Your task to perform on an android device: Open display settings Image 0: 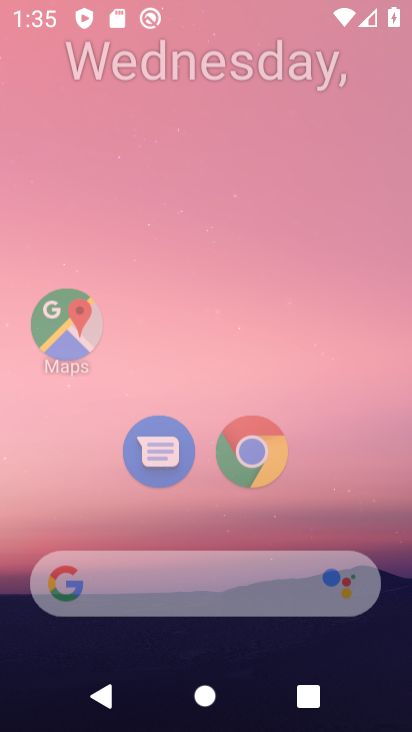
Step 0: drag from (317, 106) to (258, 5)
Your task to perform on an android device: Open display settings Image 1: 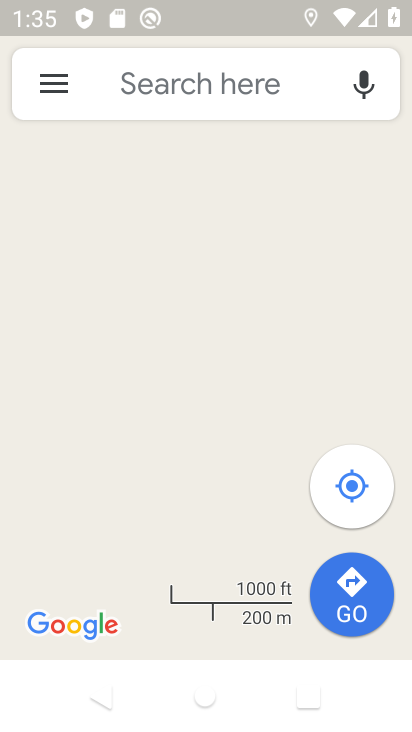
Step 1: press back button
Your task to perform on an android device: Open display settings Image 2: 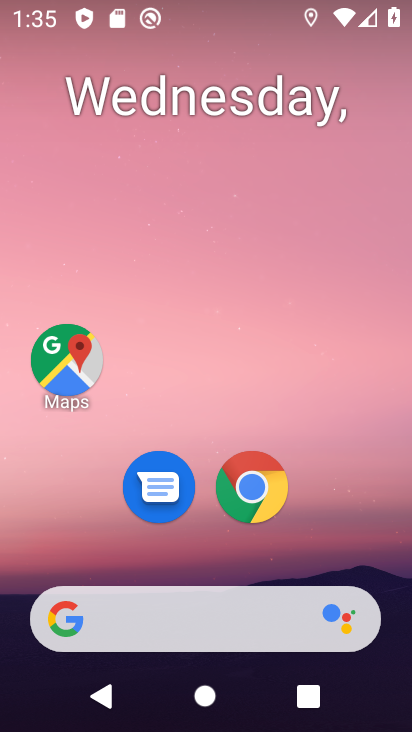
Step 2: drag from (102, 561) to (233, 9)
Your task to perform on an android device: Open display settings Image 3: 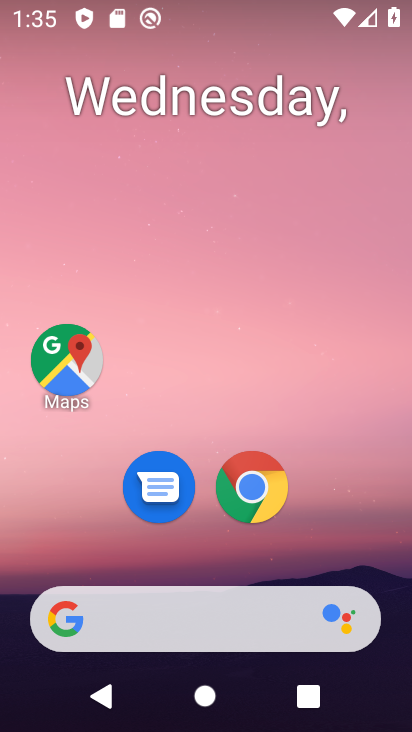
Step 3: drag from (79, 533) to (143, 16)
Your task to perform on an android device: Open display settings Image 4: 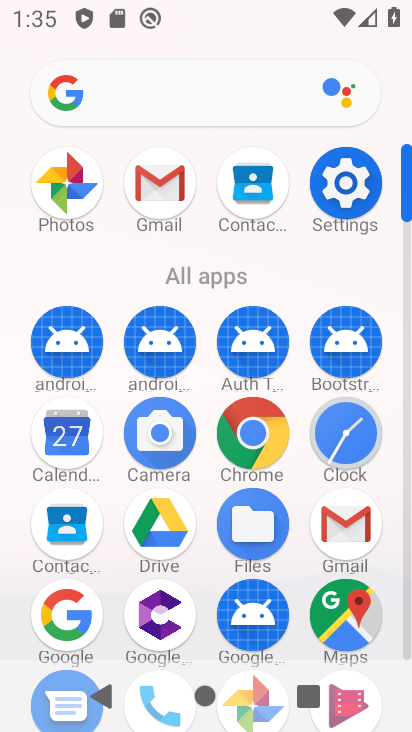
Step 4: click (341, 188)
Your task to perform on an android device: Open display settings Image 5: 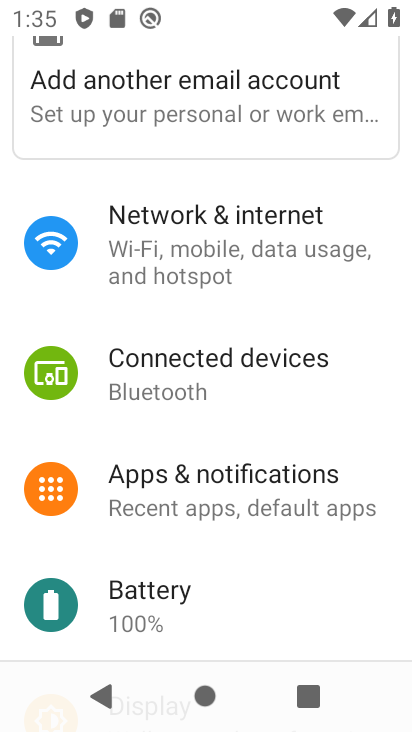
Step 5: drag from (190, 568) to (305, 99)
Your task to perform on an android device: Open display settings Image 6: 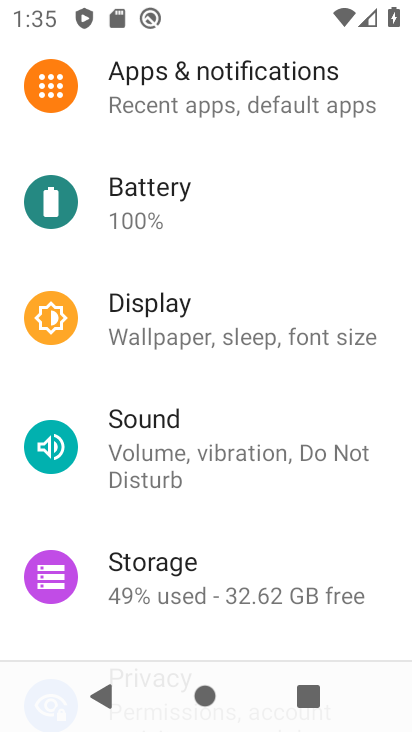
Step 6: click (142, 314)
Your task to perform on an android device: Open display settings Image 7: 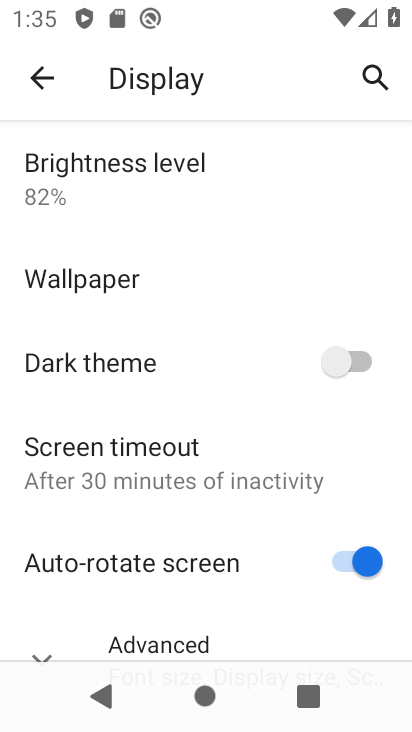
Step 7: task complete